Your task to perform on an android device: Go to accessibility settings Image 0: 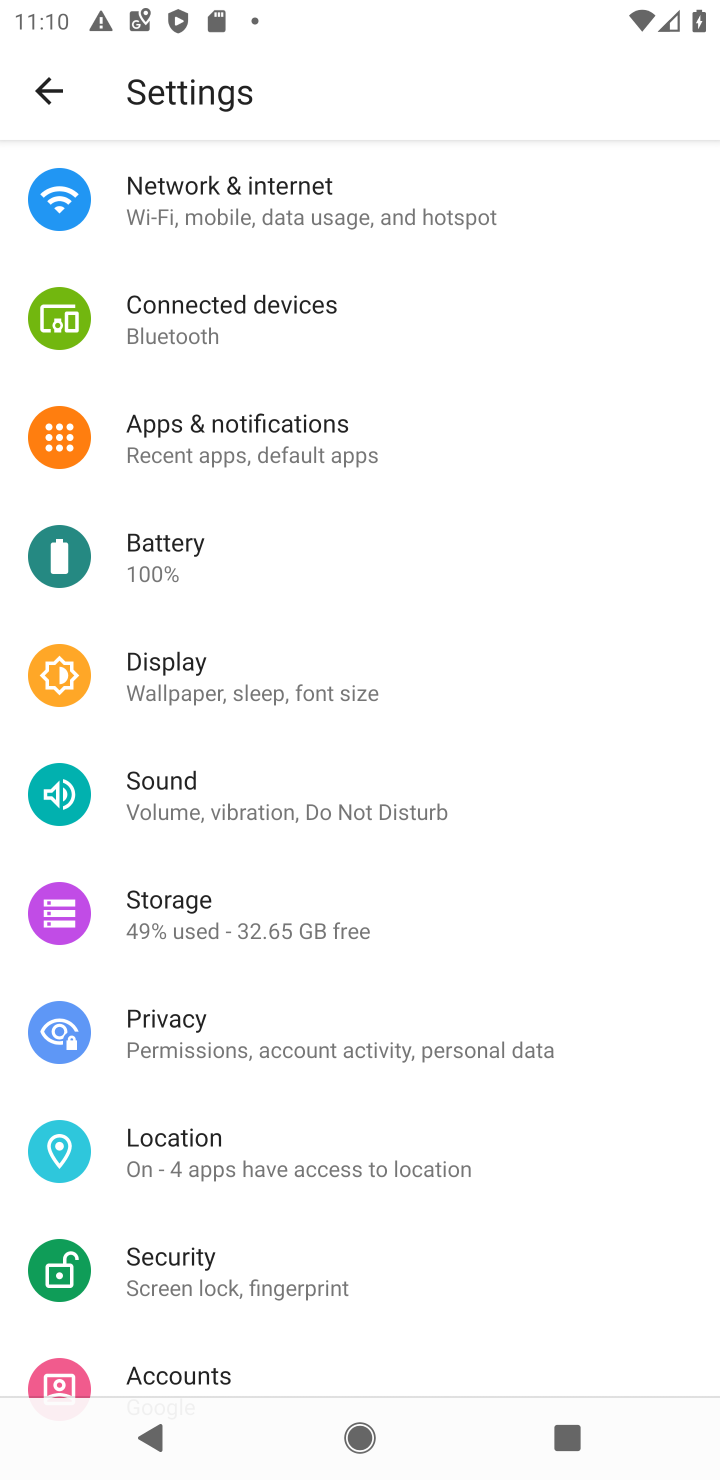
Step 0: drag from (417, 1152) to (436, 429)
Your task to perform on an android device: Go to accessibility settings Image 1: 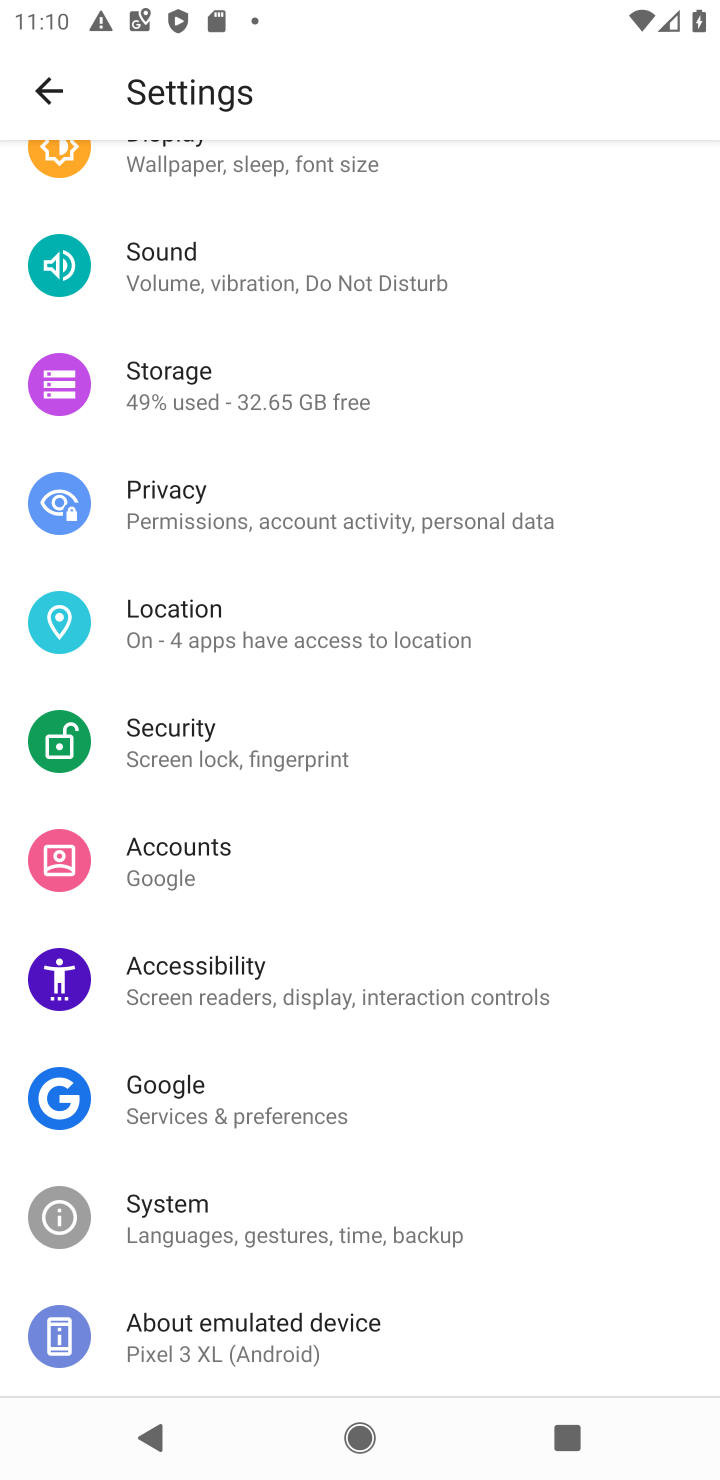
Step 1: click (173, 993)
Your task to perform on an android device: Go to accessibility settings Image 2: 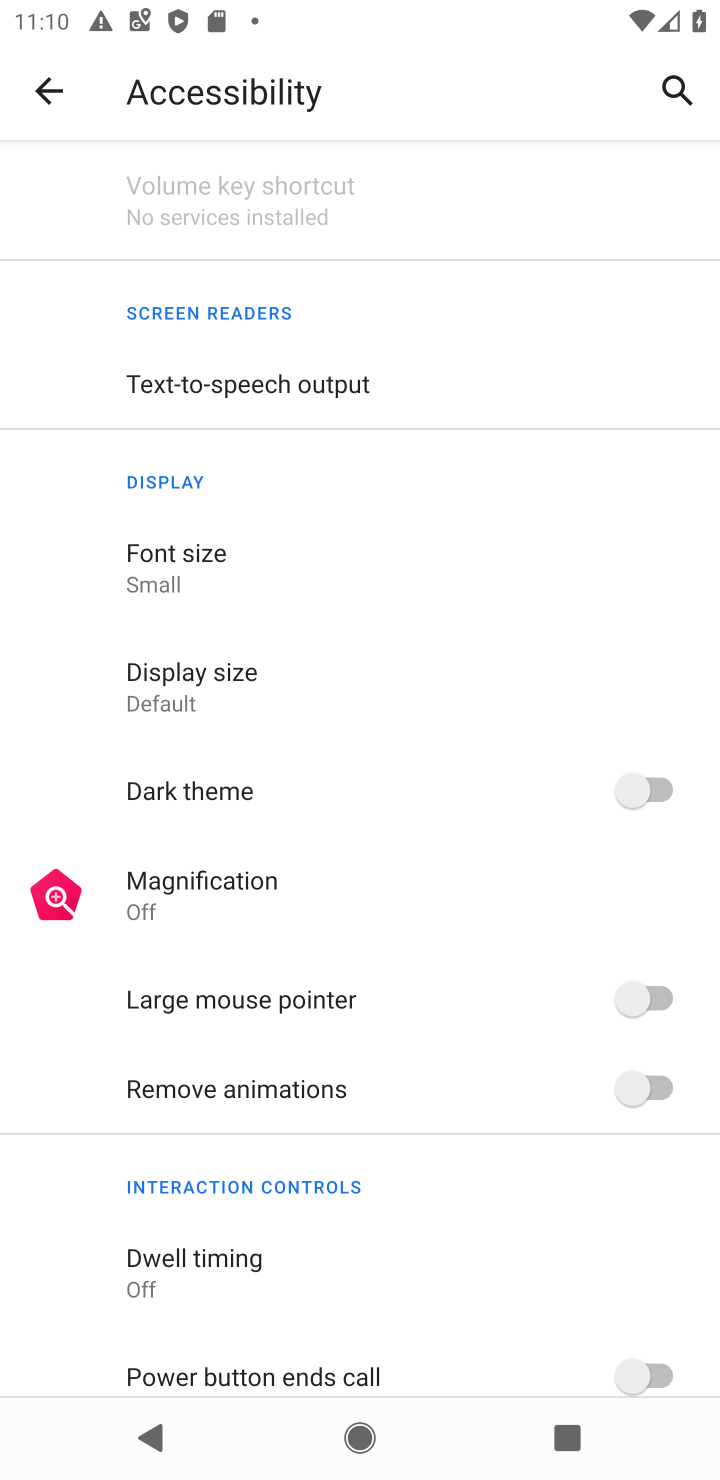
Step 2: task complete